Your task to perform on an android device: Open Maps and search for coffee Image 0: 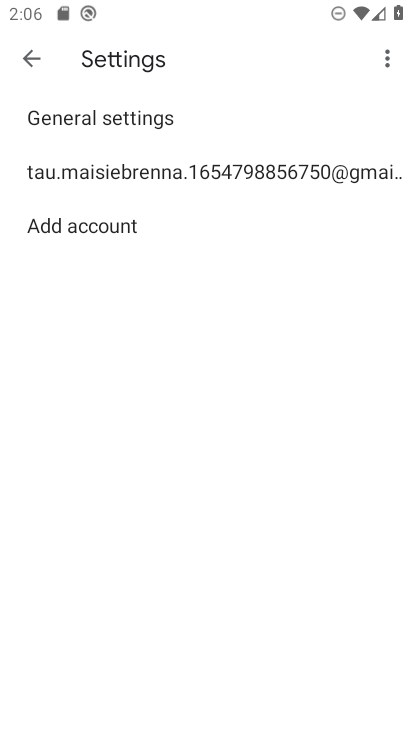
Step 0: press home button
Your task to perform on an android device: Open Maps and search for coffee Image 1: 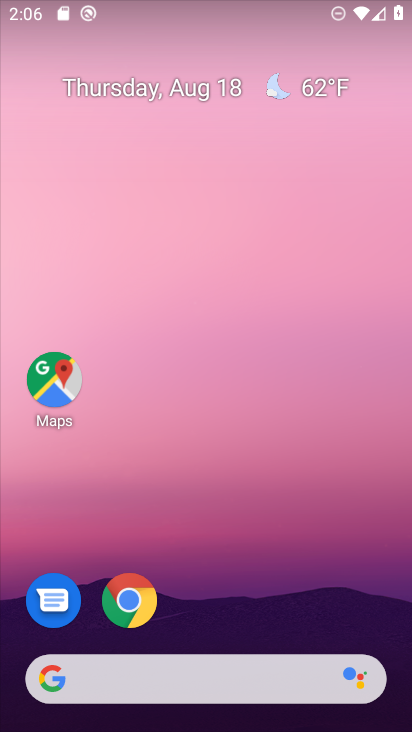
Step 1: click (50, 386)
Your task to perform on an android device: Open Maps and search for coffee Image 2: 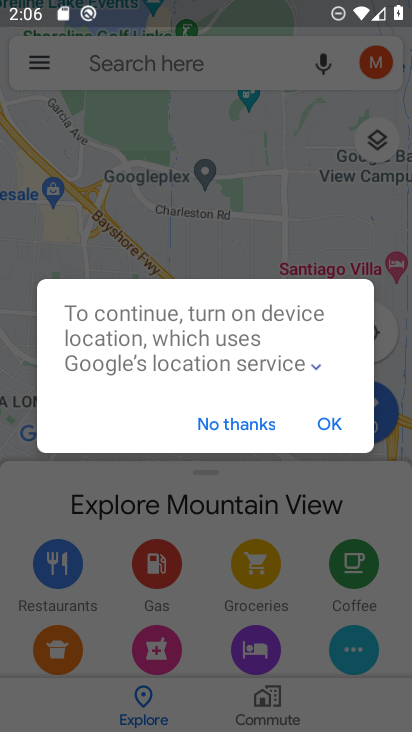
Step 2: click (154, 66)
Your task to perform on an android device: Open Maps and search for coffee Image 3: 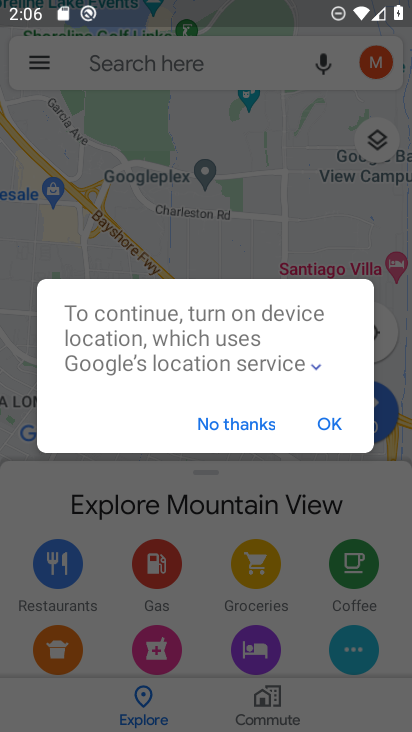
Step 3: click (336, 424)
Your task to perform on an android device: Open Maps and search for coffee Image 4: 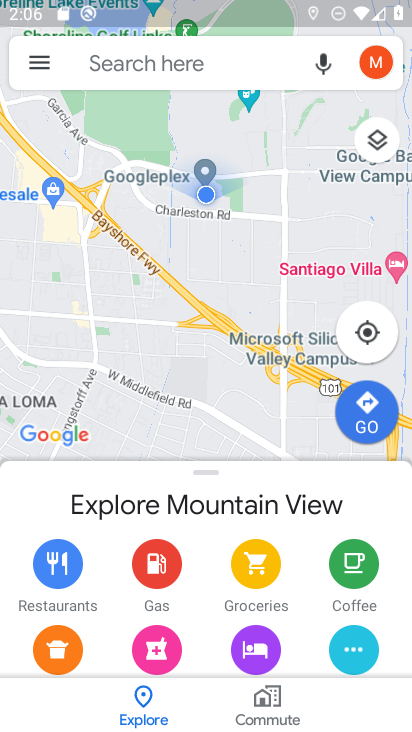
Step 4: click (104, 60)
Your task to perform on an android device: Open Maps and search for coffee Image 5: 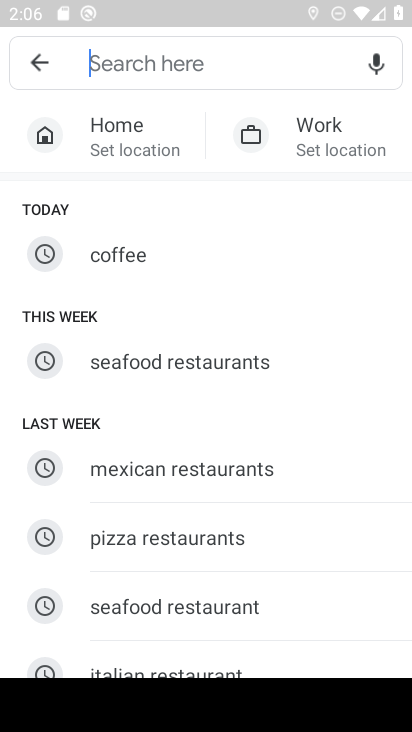
Step 5: click (116, 252)
Your task to perform on an android device: Open Maps and search for coffee Image 6: 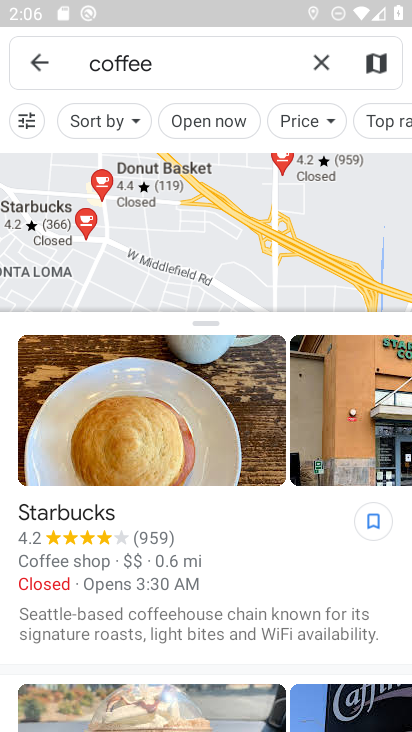
Step 6: task complete